Your task to perform on an android device: Open Google Image 0: 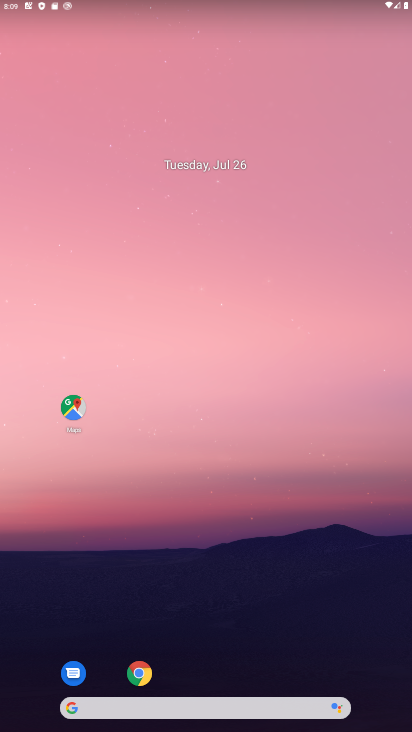
Step 0: press home button
Your task to perform on an android device: Open Google Image 1: 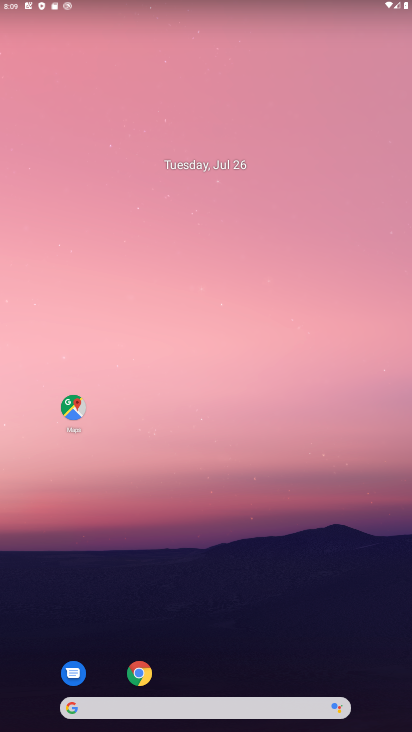
Step 1: drag from (196, 684) to (150, 262)
Your task to perform on an android device: Open Google Image 2: 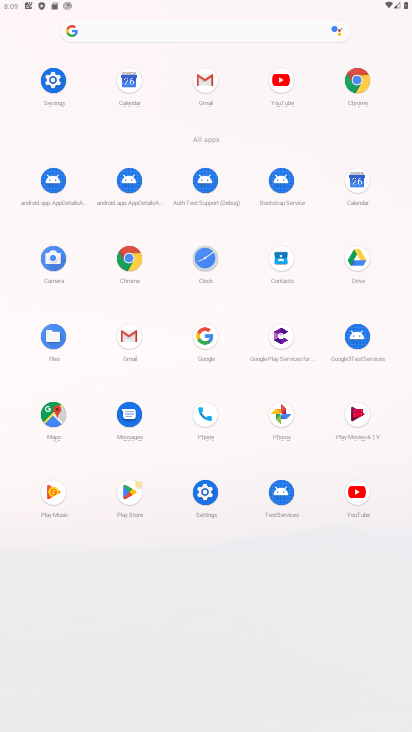
Step 2: click (218, 349)
Your task to perform on an android device: Open Google Image 3: 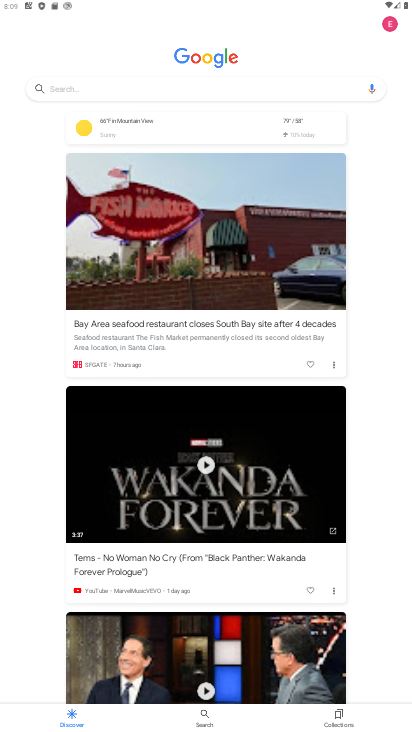
Step 3: task complete